Your task to perform on an android device: Go to privacy settings Image 0: 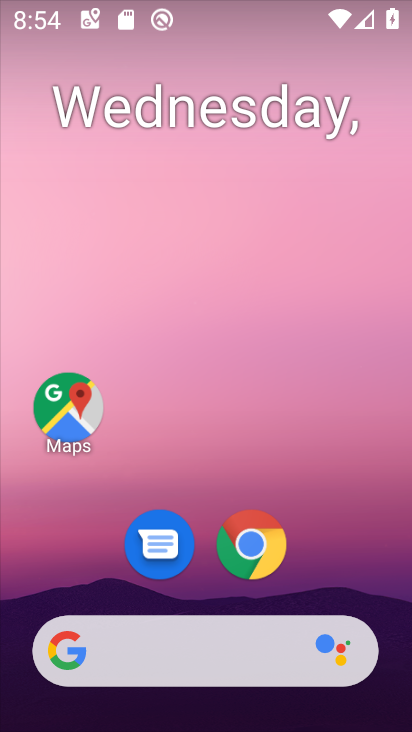
Step 0: drag from (337, 560) to (277, 232)
Your task to perform on an android device: Go to privacy settings Image 1: 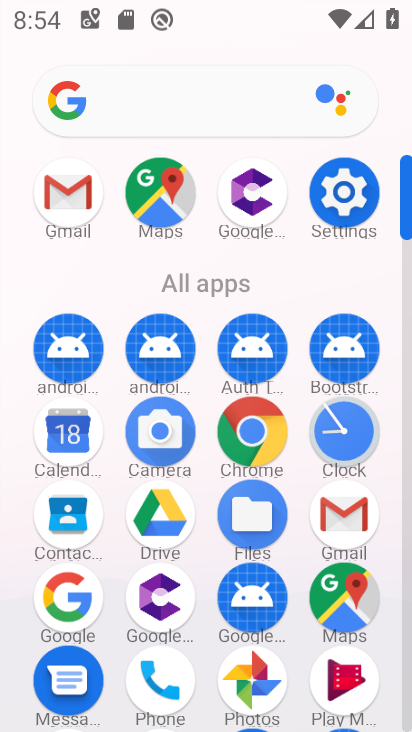
Step 1: click (333, 193)
Your task to perform on an android device: Go to privacy settings Image 2: 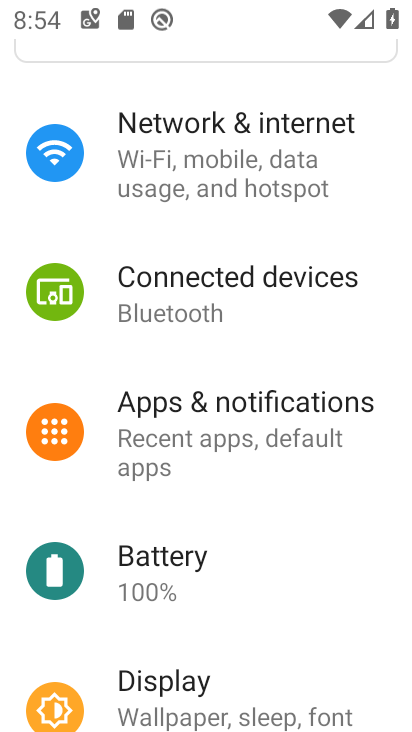
Step 2: drag from (272, 579) to (322, 67)
Your task to perform on an android device: Go to privacy settings Image 3: 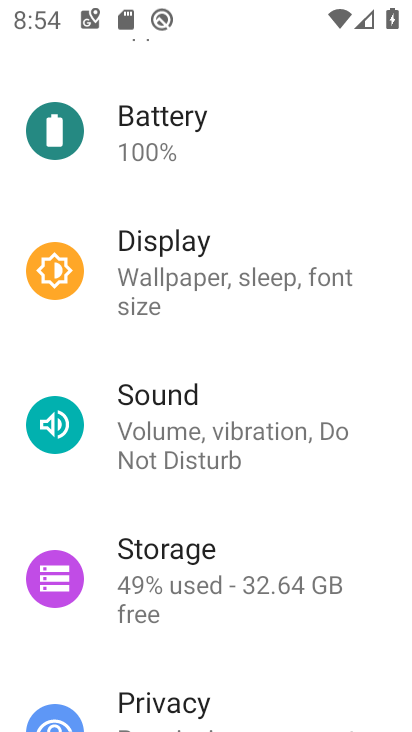
Step 3: click (201, 694)
Your task to perform on an android device: Go to privacy settings Image 4: 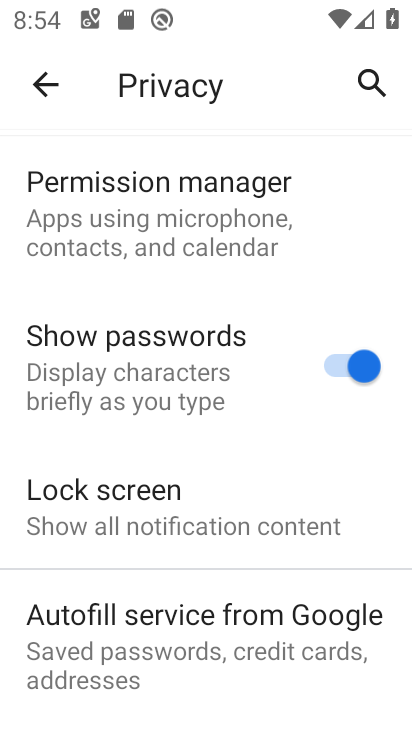
Step 4: task complete